Your task to perform on an android device: open sync settings in chrome Image 0: 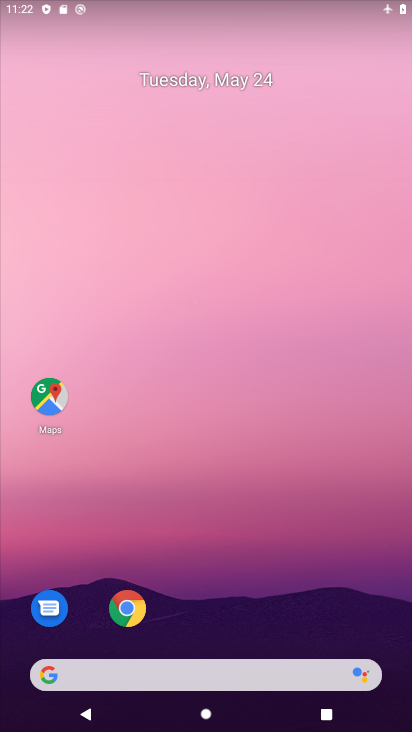
Step 0: click (127, 606)
Your task to perform on an android device: open sync settings in chrome Image 1: 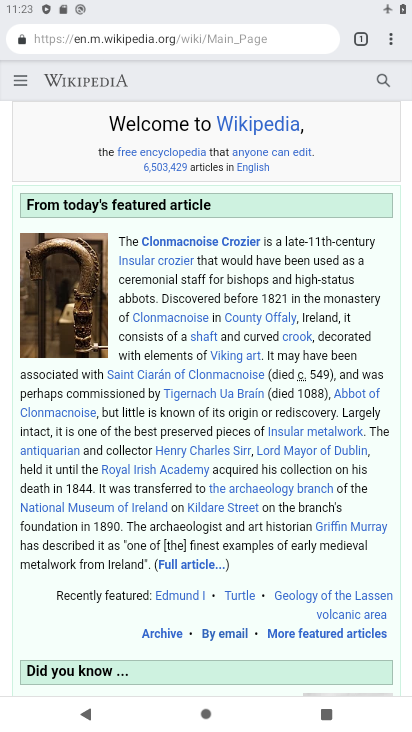
Step 1: click (392, 40)
Your task to perform on an android device: open sync settings in chrome Image 2: 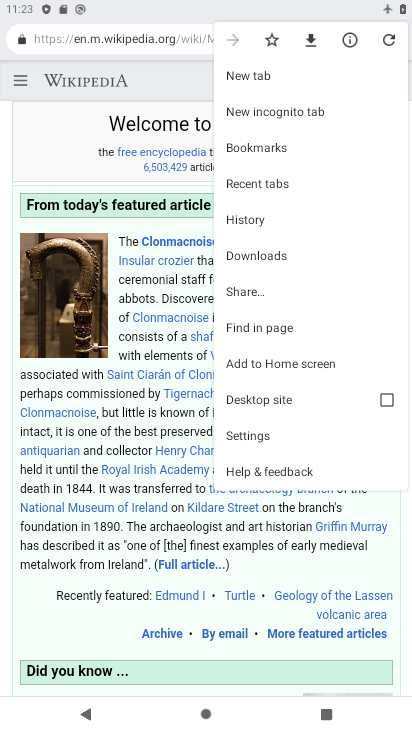
Step 2: click (263, 430)
Your task to perform on an android device: open sync settings in chrome Image 3: 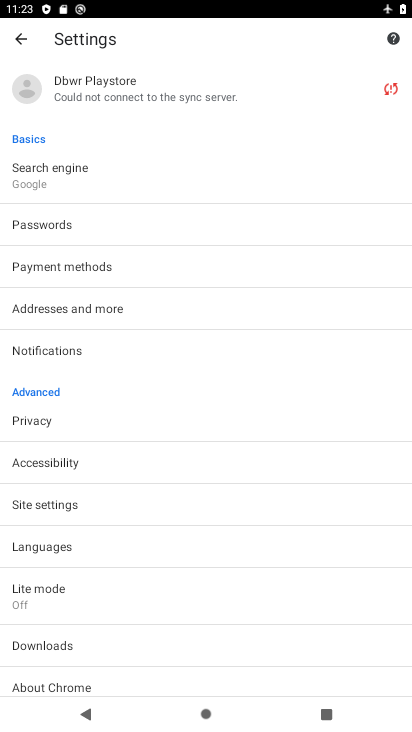
Step 3: click (169, 95)
Your task to perform on an android device: open sync settings in chrome Image 4: 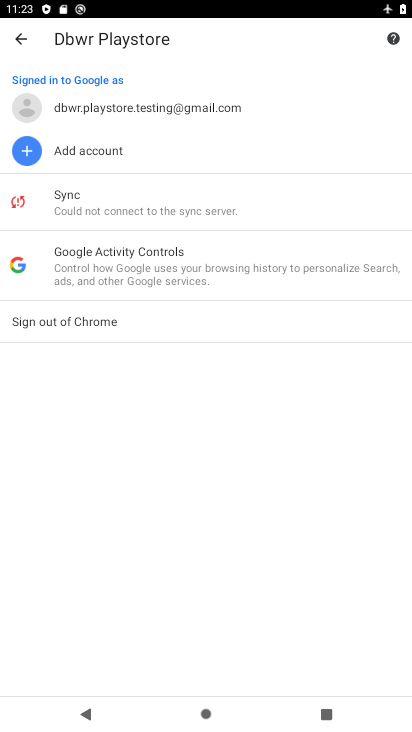
Step 4: click (112, 219)
Your task to perform on an android device: open sync settings in chrome Image 5: 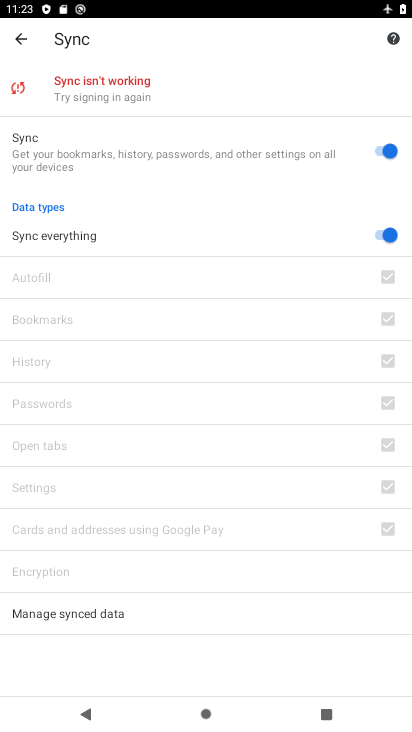
Step 5: task complete